Your task to perform on an android device: create a new album in the google photos Image 0: 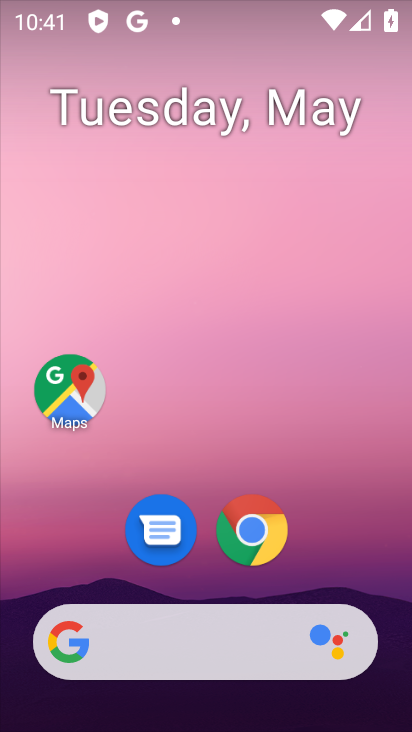
Step 0: drag from (330, 456) to (308, 61)
Your task to perform on an android device: create a new album in the google photos Image 1: 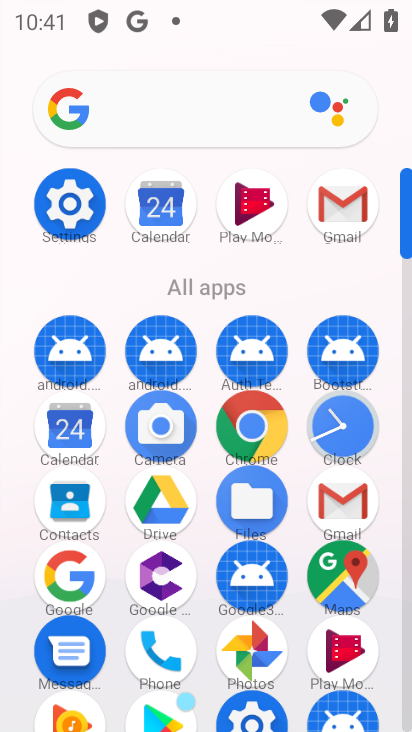
Step 1: click (251, 662)
Your task to perform on an android device: create a new album in the google photos Image 2: 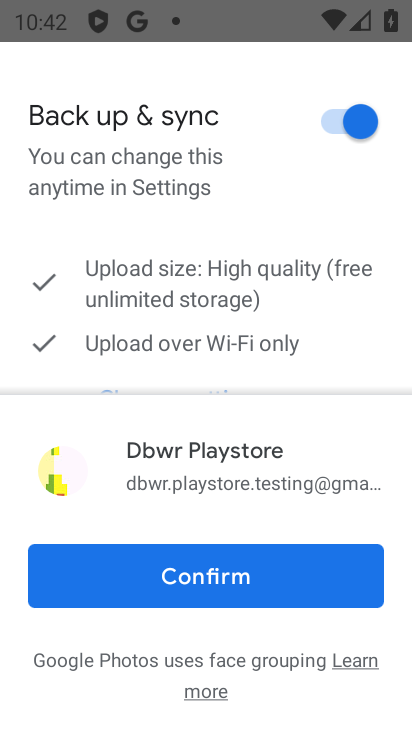
Step 2: click (204, 574)
Your task to perform on an android device: create a new album in the google photos Image 3: 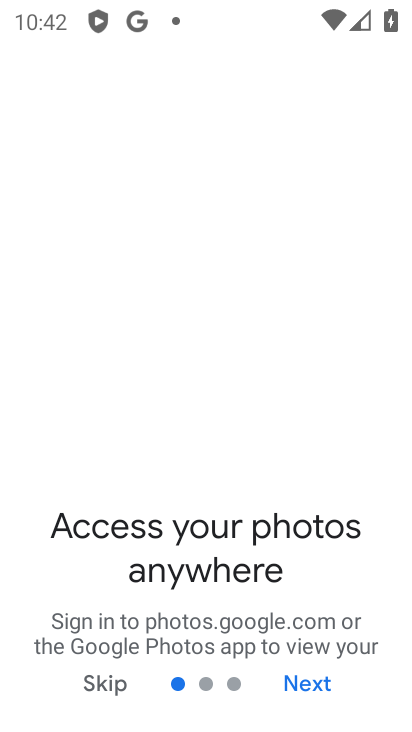
Step 3: click (323, 677)
Your task to perform on an android device: create a new album in the google photos Image 4: 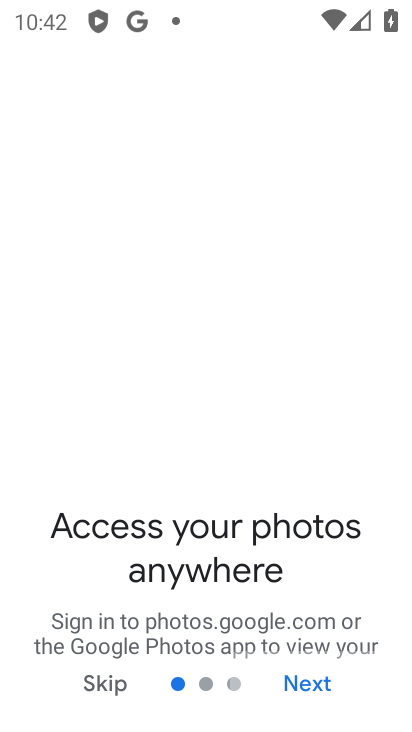
Step 4: click (323, 677)
Your task to perform on an android device: create a new album in the google photos Image 5: 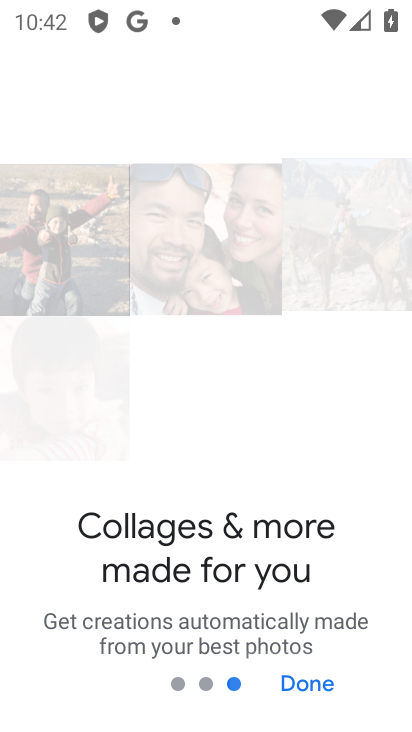
Step 5: click (323, 677)
Your task to perform on an android device: create a new album in the google photos Image 6: 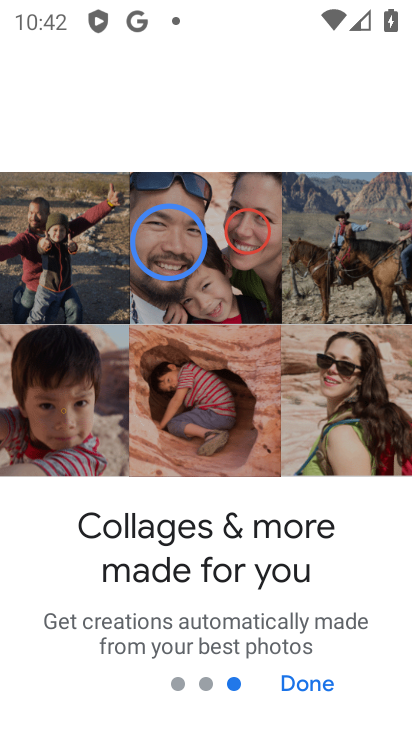
Step 6: click (323, 677)
Your task to perform on an android device: create a new album in the google photos Image 7: 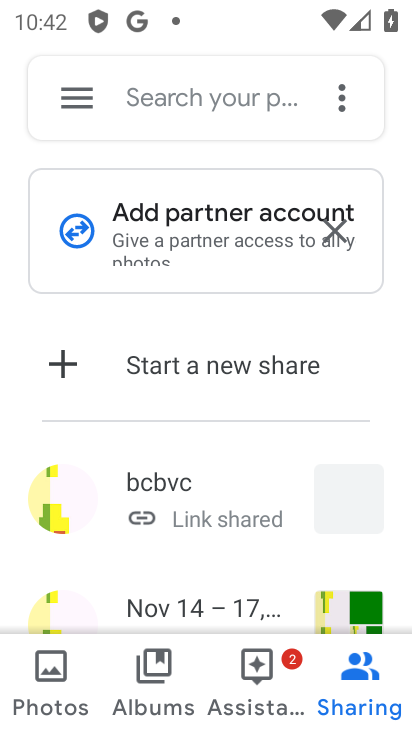
Step 7: click (162, 678)
Your task to perform on an android device: create a new album in the google photos Image 8: 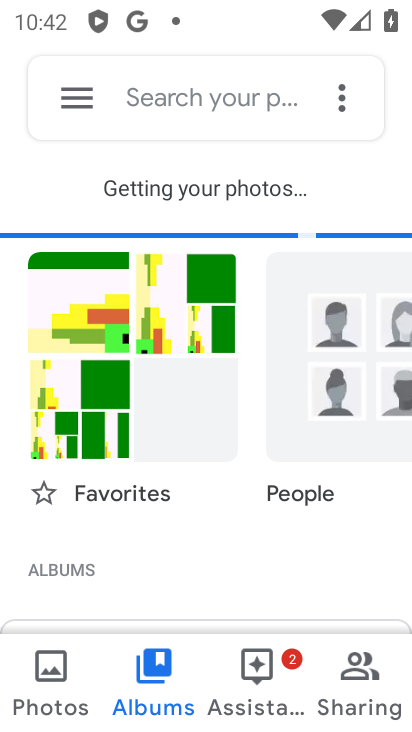
Step 8: click (349, 84)
Your task to perform on an android device: create a new album in the google photos Image 9: 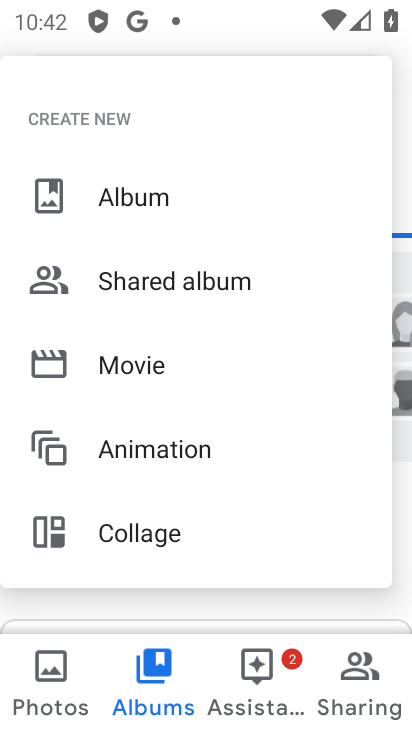
Step 9: click (135, 205)
Your task to perform on an android device: create a new album in the google photos Image 10: 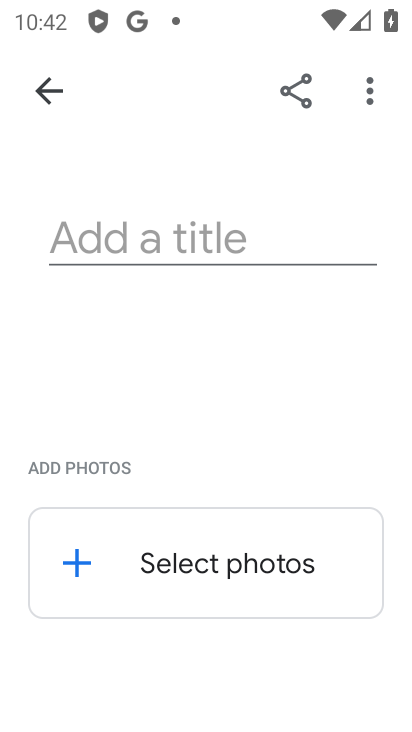
Step 10: click (136, 238)
Your task to perform on an android device: create a new album in the google photos Image 11: 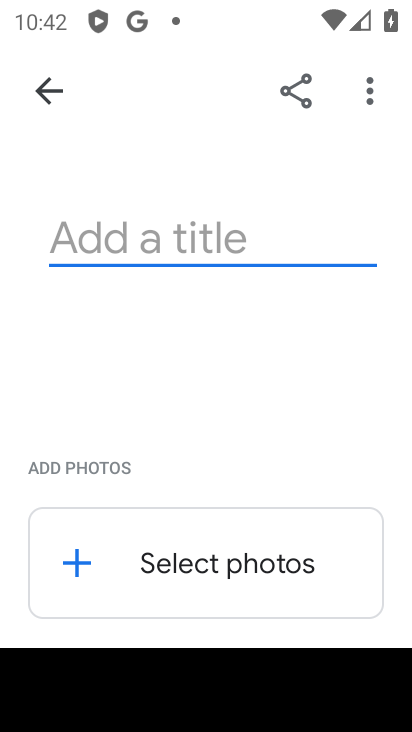
Step 11: type "elder"
Your task to perform on an android device: create a new album in the google photos Image 12: 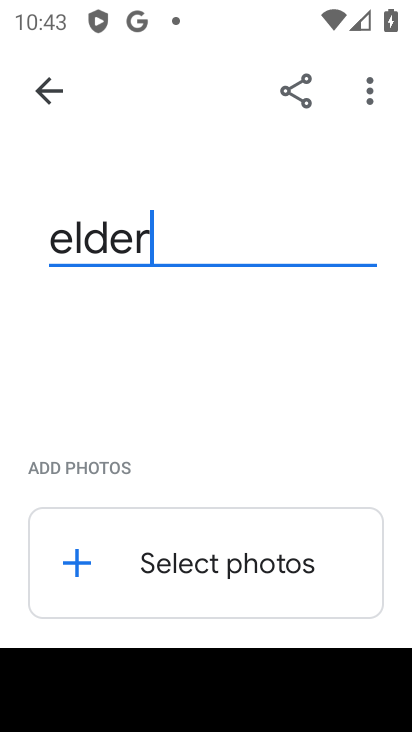
Step 12: click (274, 540)
Your task to perform on an android device: create a new album in the google photos Image 13: 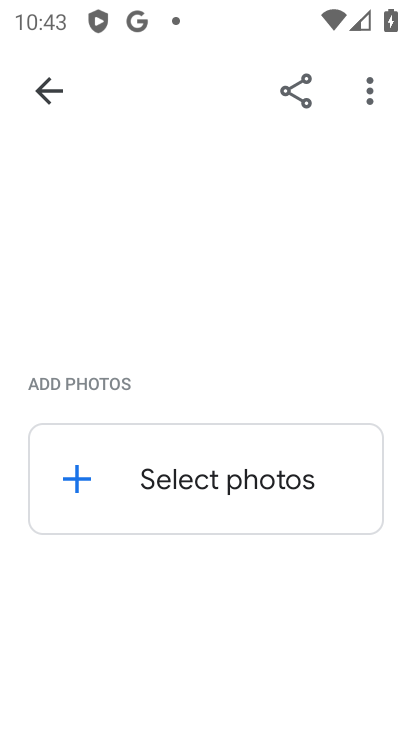
Step 13: click (218, 500)
Your task to perform on an android device: create a new album in the google photos Image 14: 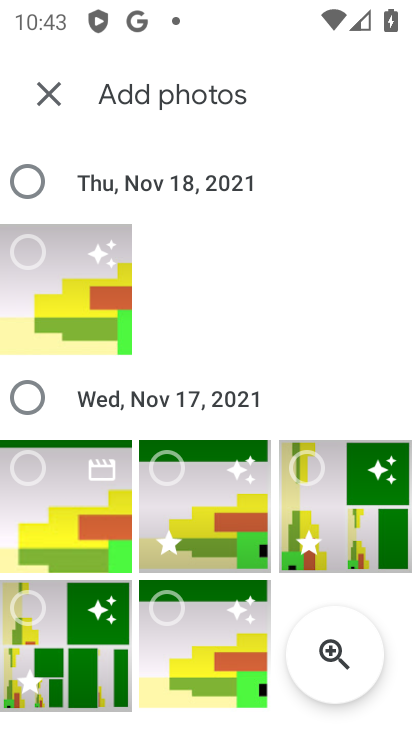
Step 14: click (41, 220)
Your task to perform on an android device: create a new album in the google photos Image 15: 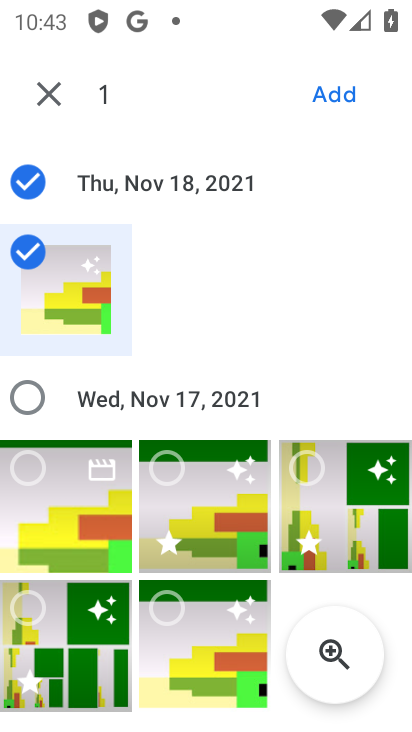
Step 15: click (351, 101)
Your task to perform on an android device: create a new album in the google photos Image 16: 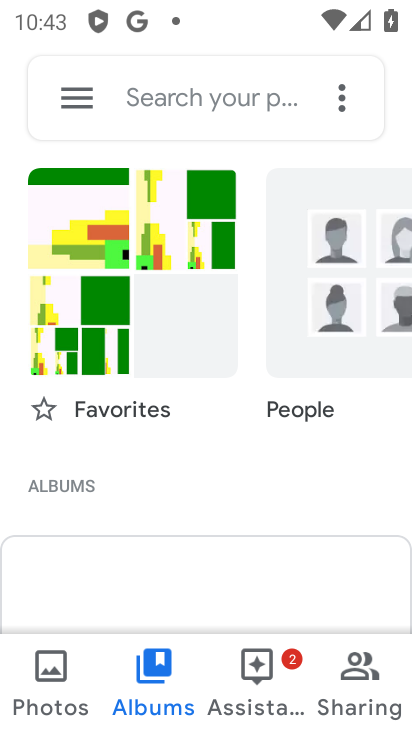
Step 16: task complete